Your task to perform on an android device: add a contact Image 0: 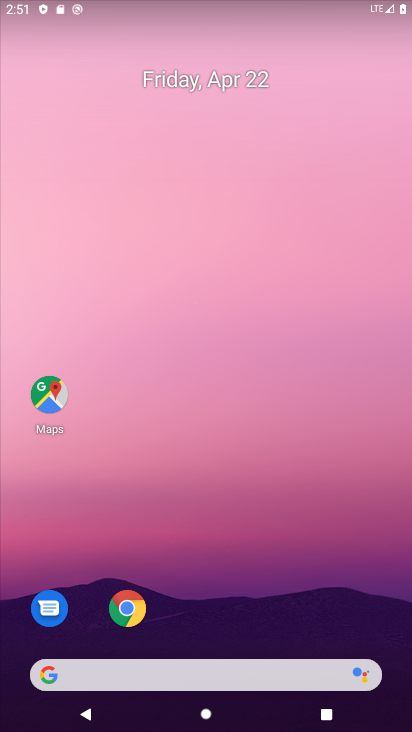
Step 0: click (242, 194)
Your task to perform on an android device: add a contact Image 1: 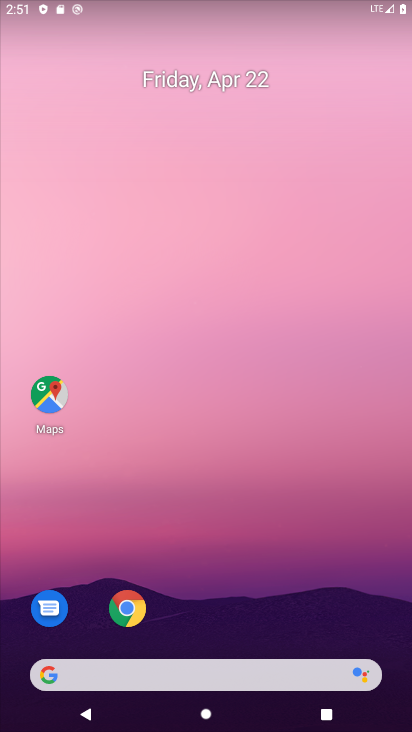
Step 1: drag from (278, 683) to (265, 270)
Your task to perform on an android device: add a contact Image 2: 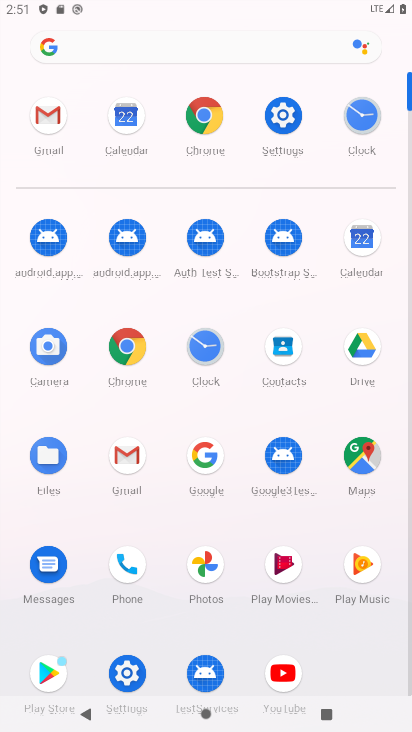
Step 2: click (129, 556)
Your task to perform on an android device: add a contact Image 3: 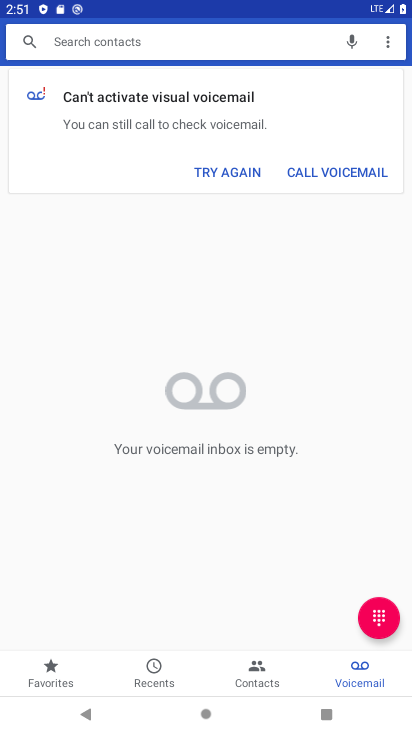
Step 3: click (256, 676)
Your task to perform on an android device: add a contact Image 4: 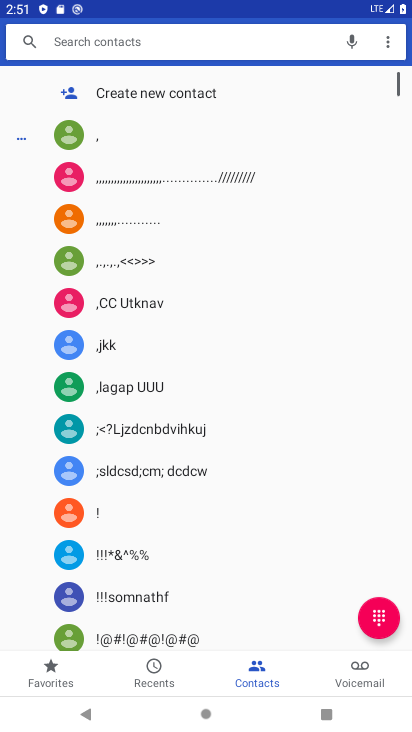
Step 4: click (153, 91)
Your task to perform on an android device: add a contact Image 5: 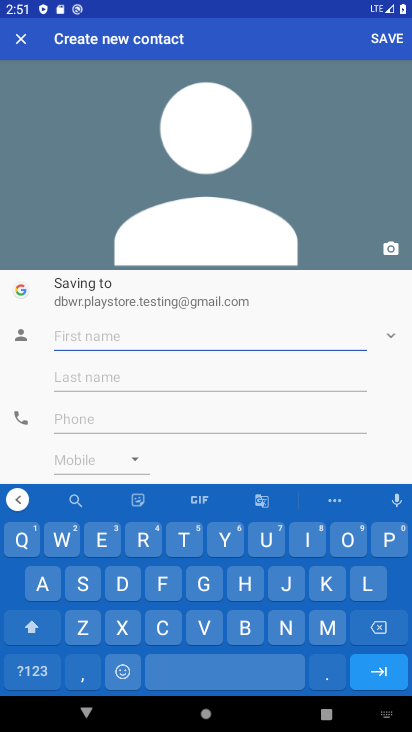
Step 5: click (38, 590)
Your task to perform on an android device: add a contact Image 6: 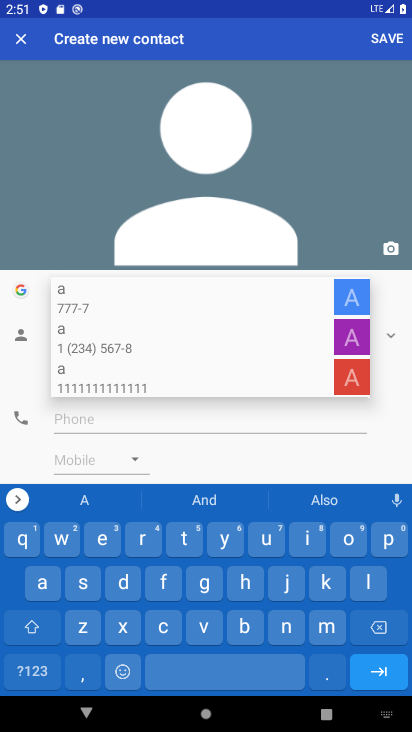
Step 6: click (203, 623)
Your task to perform on an android device: add a contact Image 7: 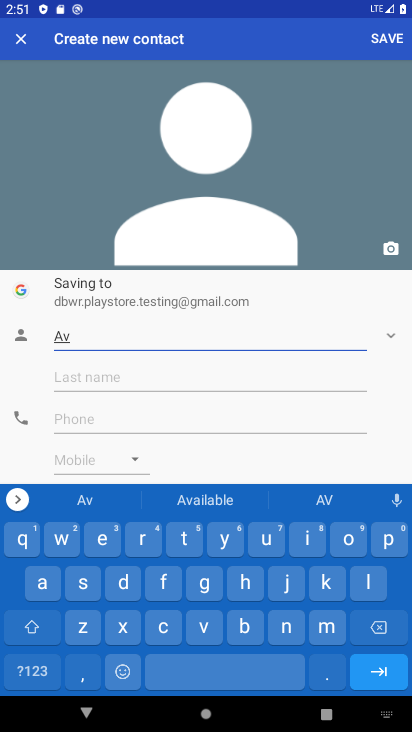
Step 7: click (310, 546)
Your task to perform on an android device: add a contact Image 8: 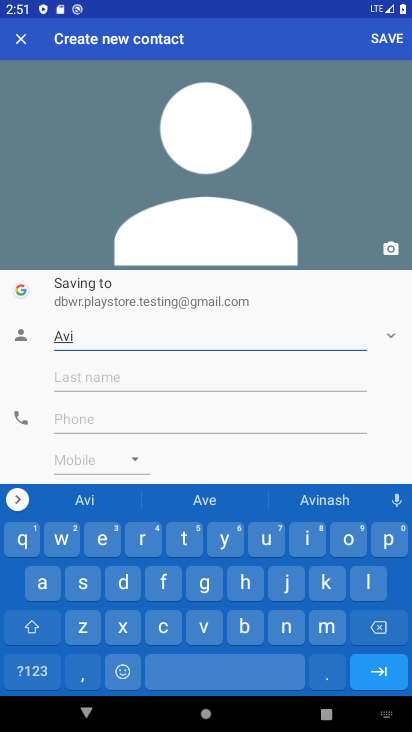
Step 8: click (98, 408)
Your task to perform on an android device: add a contact Image 9: 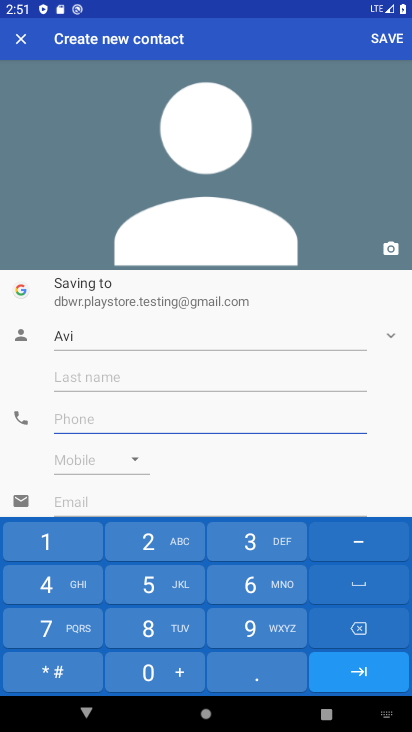
Step 9: click (266, 628)
Your task to perform on an android device: add a contact Image 10: 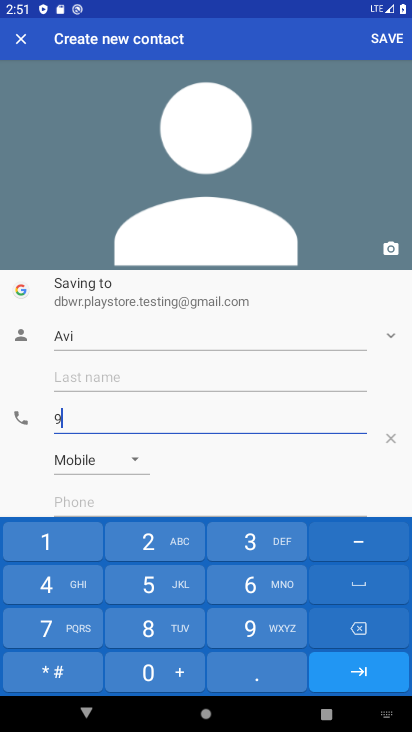
Step 10: click (266, 628)
Your task to perform on an android device: add a contact Image 11: 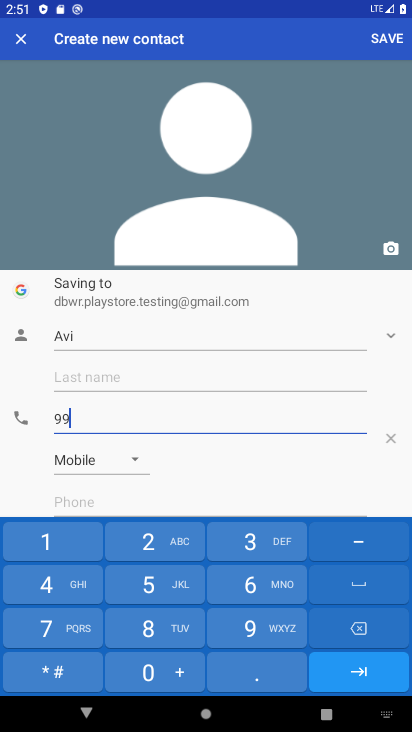
Step 11: drag from (157, 600) to (57, 529)
Your task to perform on an android device: add a contact Image 12: 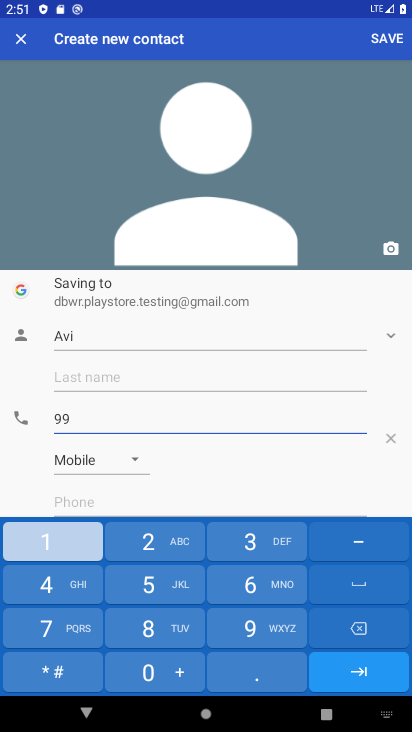
Step 12: click (57, 529)
Your task to perform on an android device: add a contact Image 13: 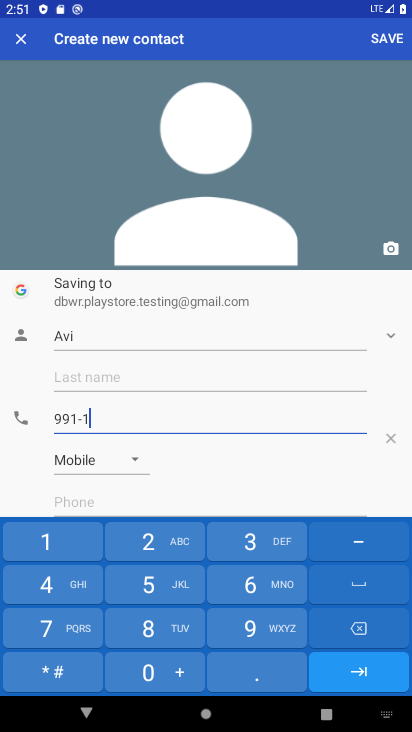
Step 13: click (256, 594)
Your task to perform on an android device: add a contact Image 14: 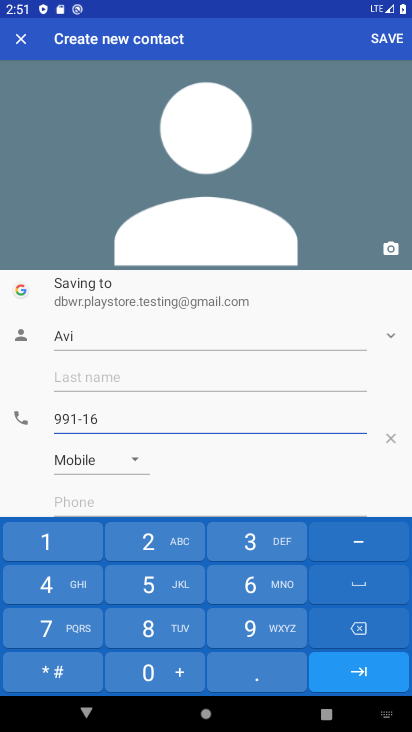
Step 14: click (249, 626)
Your task to perform on an android device: add a contact Image 15: 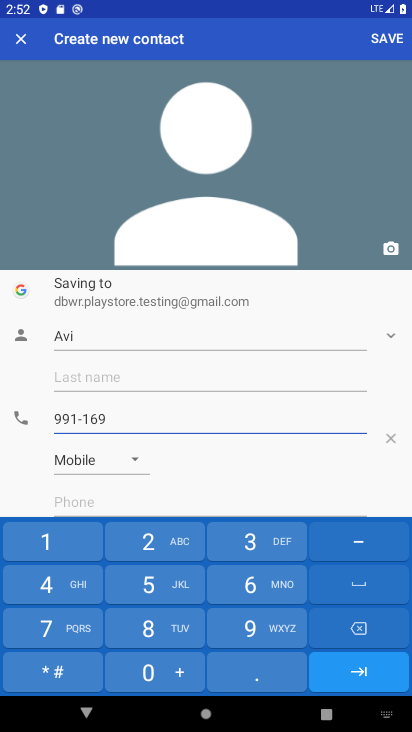
Step 15: click (144, 588)
Your task to perform on an android device: add a contact Image 16: 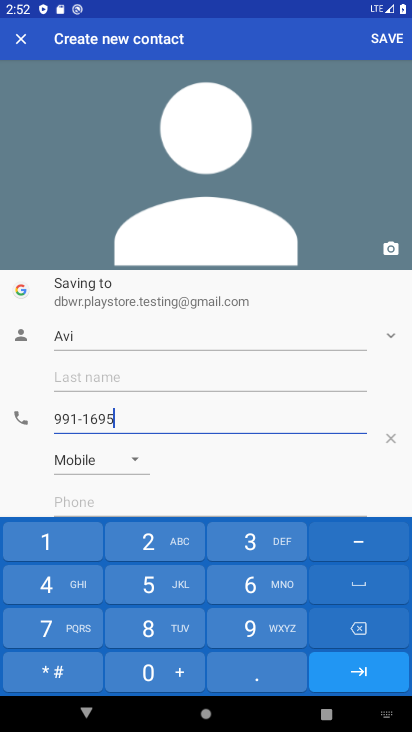
Step 16: click (237, 591)
Your task to perform on an android device: add a contact Image 17: 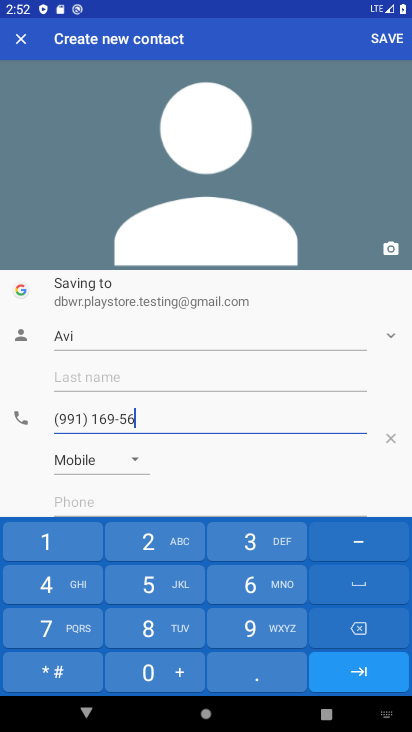
Step 17: click (176, 538)
Your task to perform on an android device: add a contact Image 18: 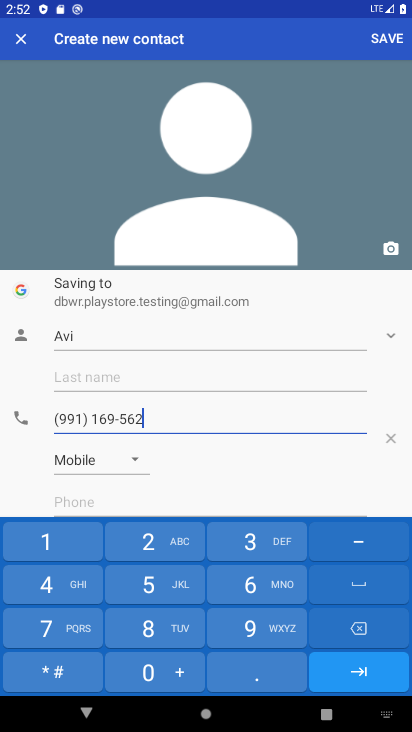
Step 18: click (150, 591)
Your task to perform on an android device: add a contact Image 19: 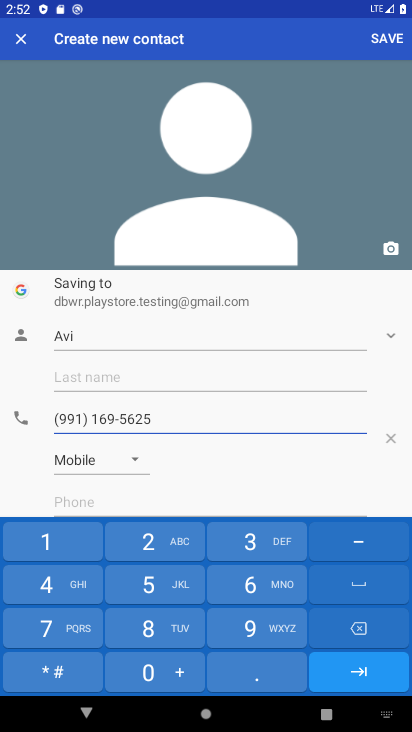
Step 19: click (391, 35)
Your task to perform on an android device: add a contact Image 20: 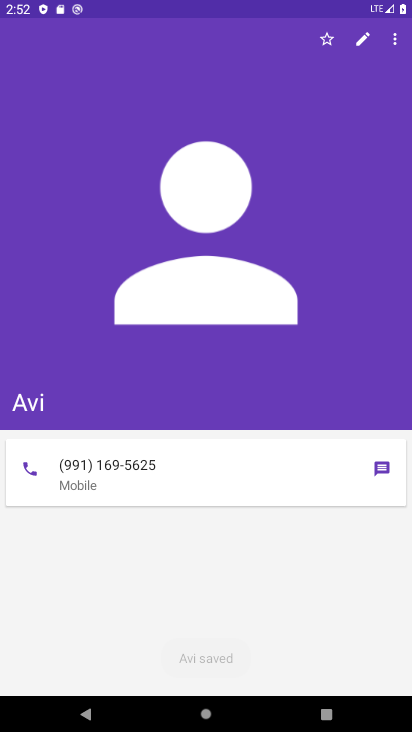
Step 20: task complete